Your task to perform on an android device: find which apps use the phone's location Image 0: 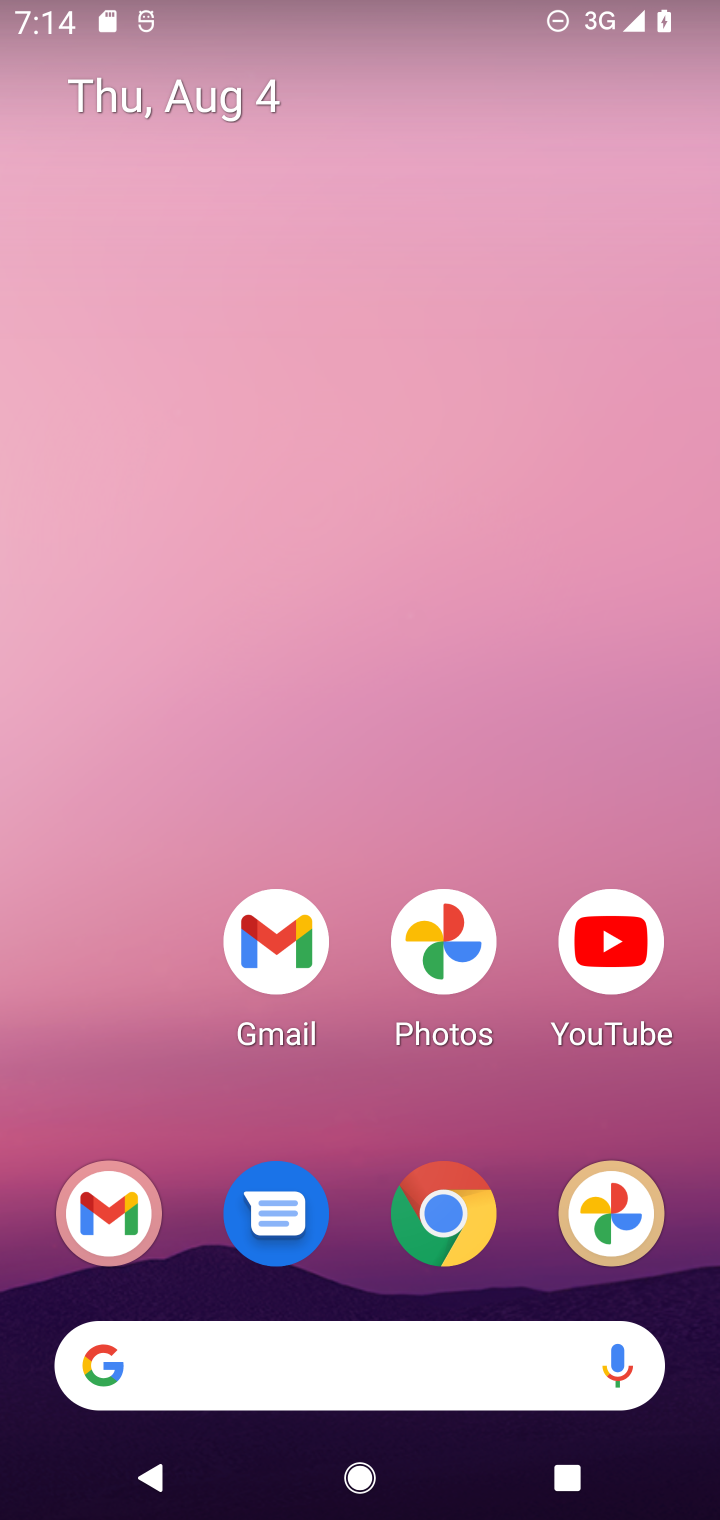
Step 0: press home button
Your task to perform on an android device: find which apps use the phone's location Image 1: 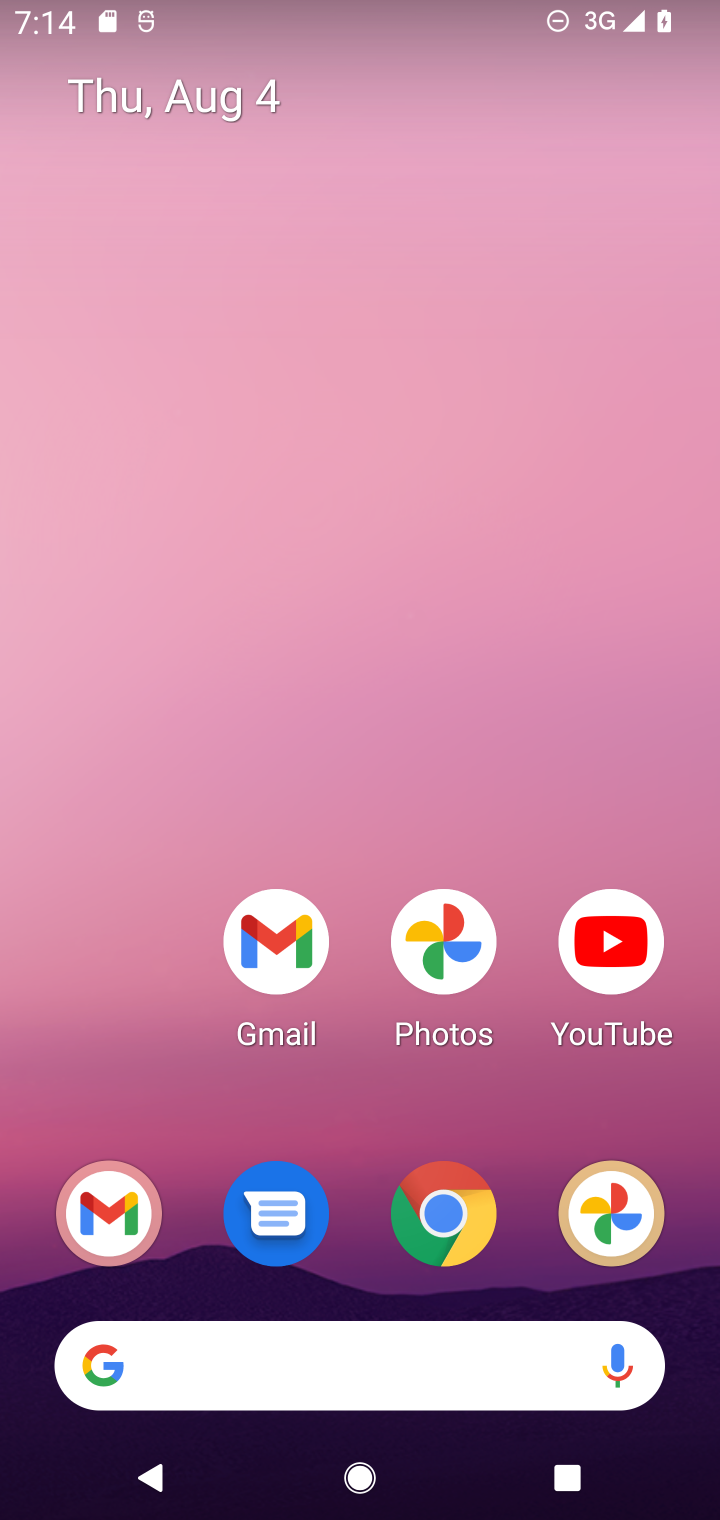
Step 1: drag from (174, 1106) to (102, 296)
Your task to perform on an android device: find which apps use the phone's location Image 2: 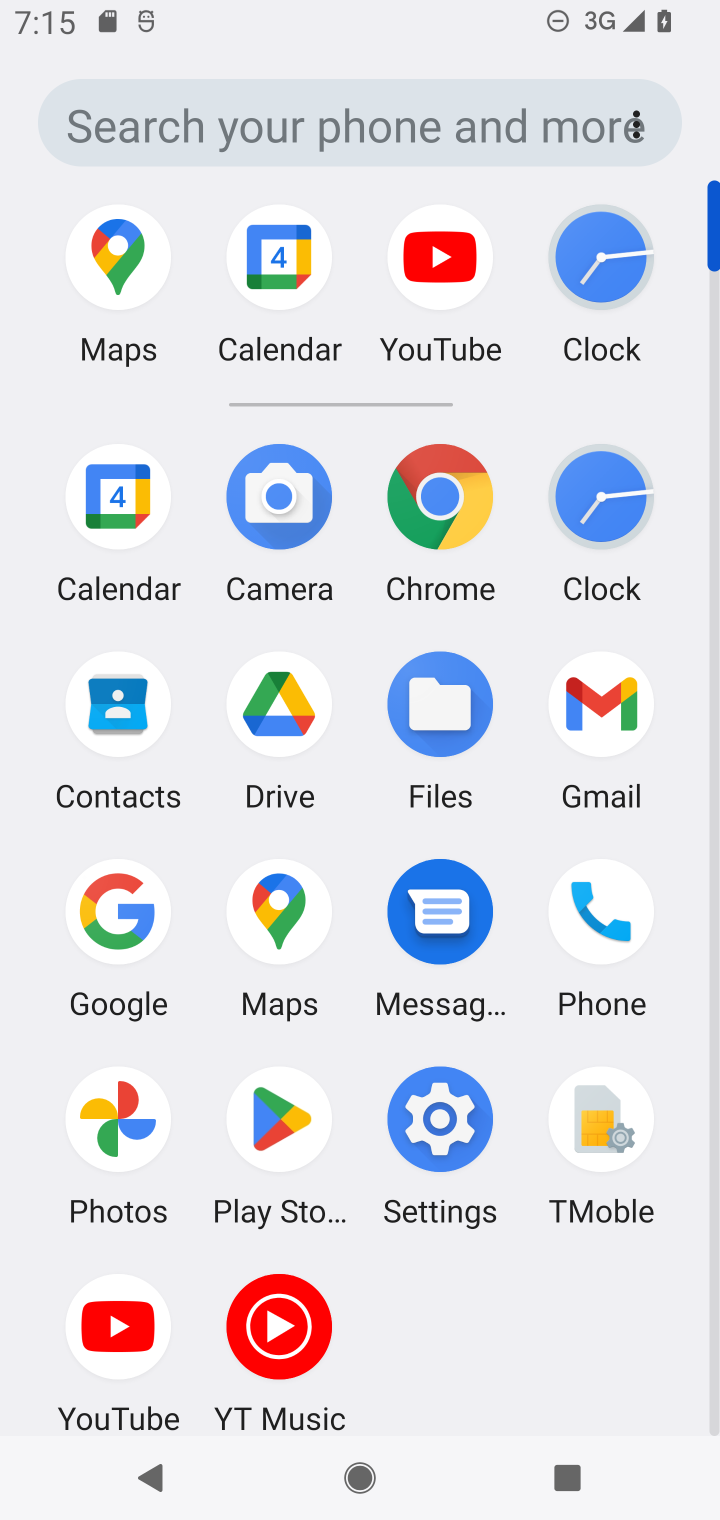
Step 2: click (433, 1150)
Your task to perform on an android device: find which apps use the phone's location Image 3: 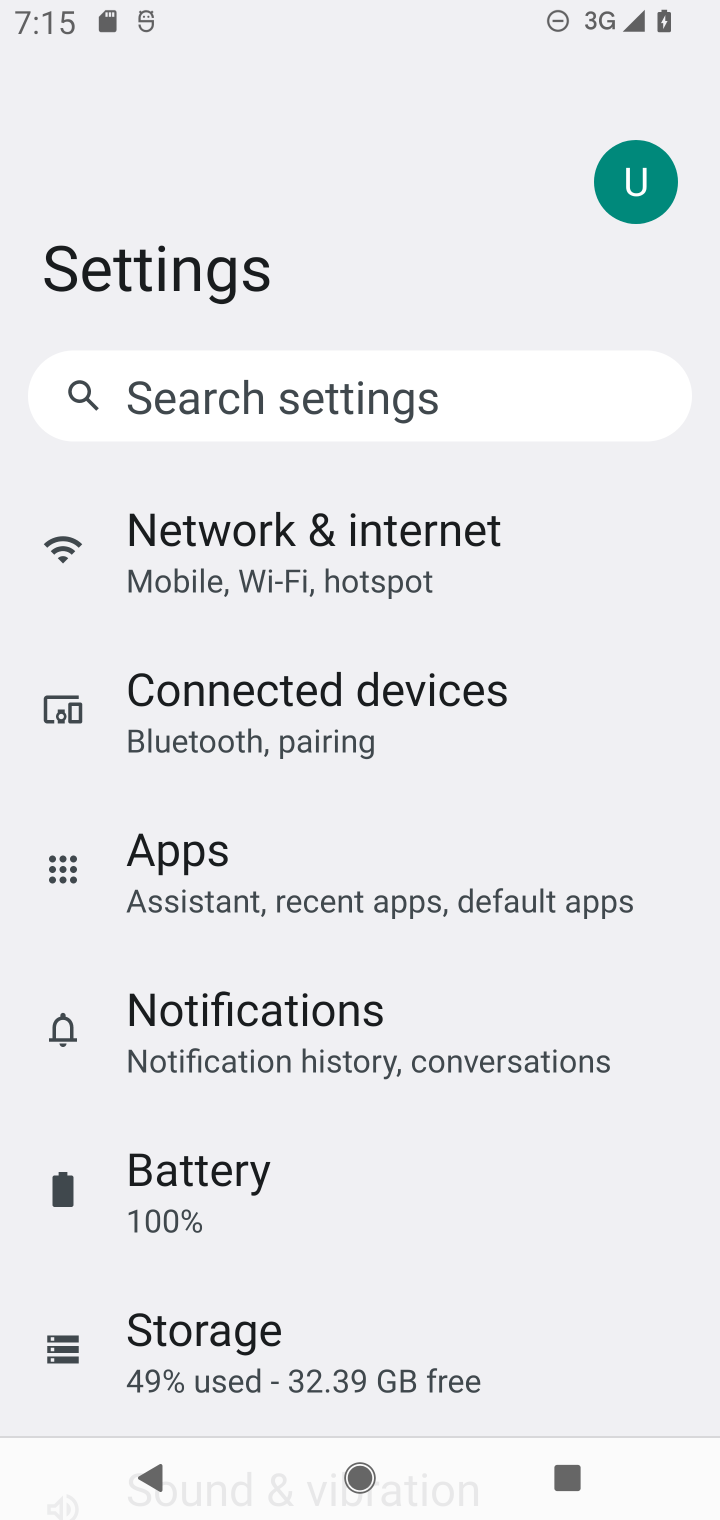
Step 3: drag from (596, 1170) to (617, 805)
Your task to perform on an android device: find which apps use the phone's location Image 4: 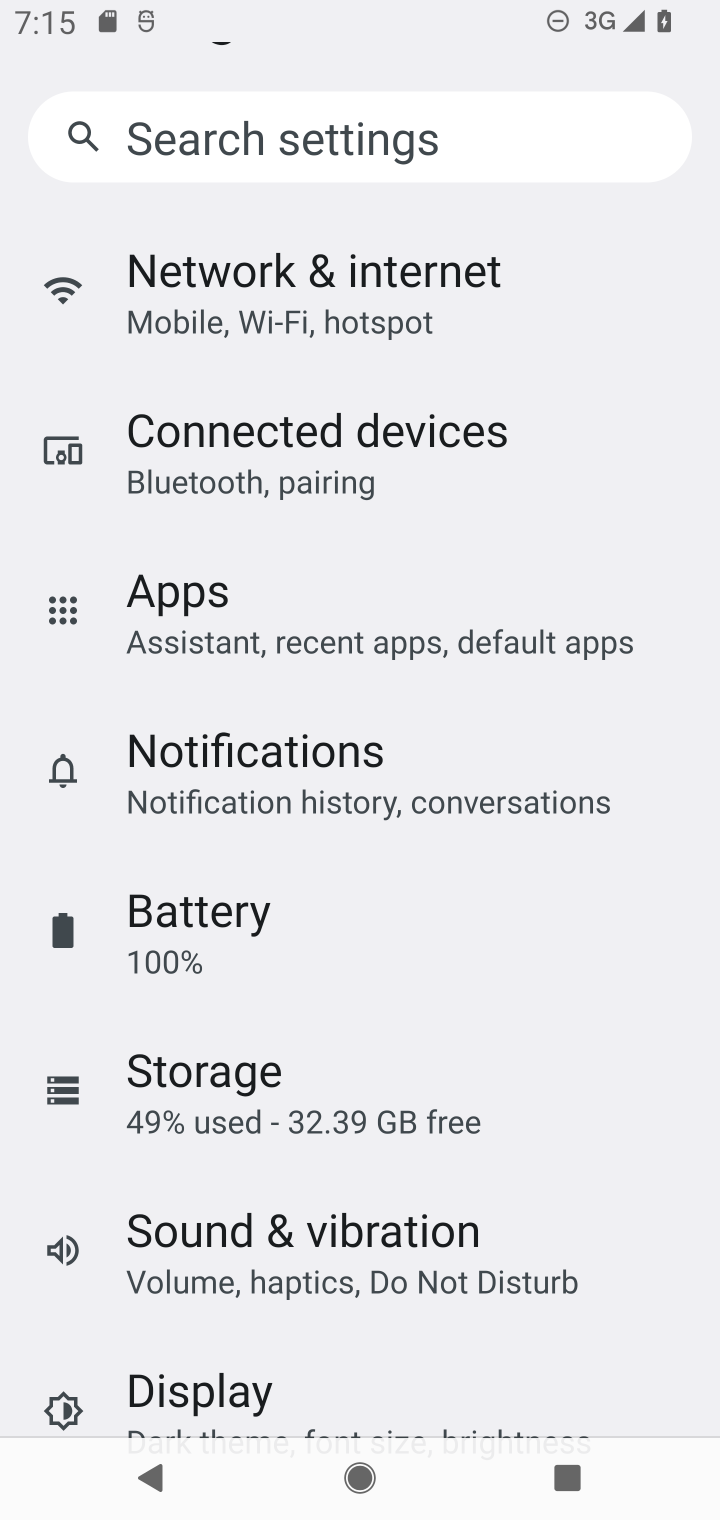
Step 4: drag from (615, 1234) to (627, 840)
Your task to perform on an android device: find which apps use the phone's location Image 5: 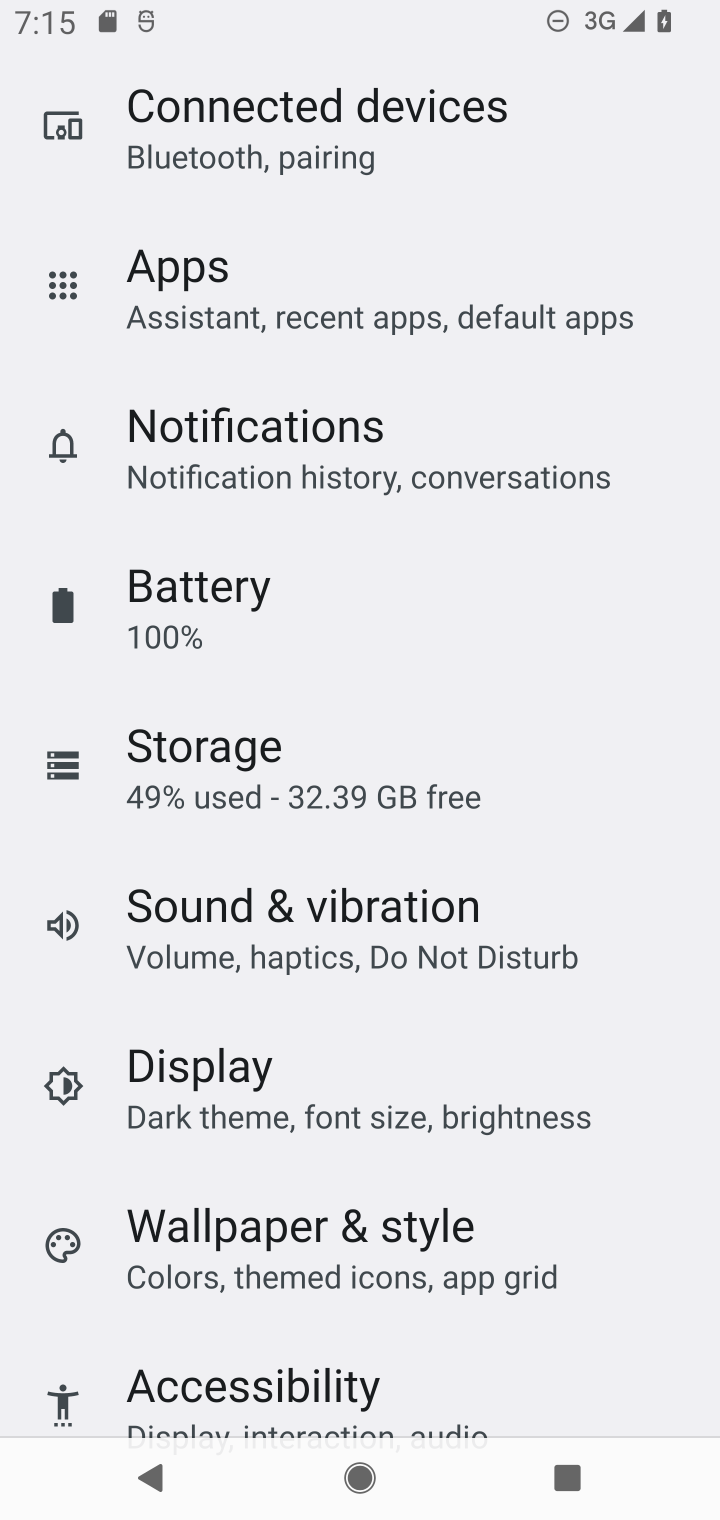
Step 5: drag from (629, 1304) to (639, 958)
Your task to perform on an android device: find which apps use the phone's location Image 6: 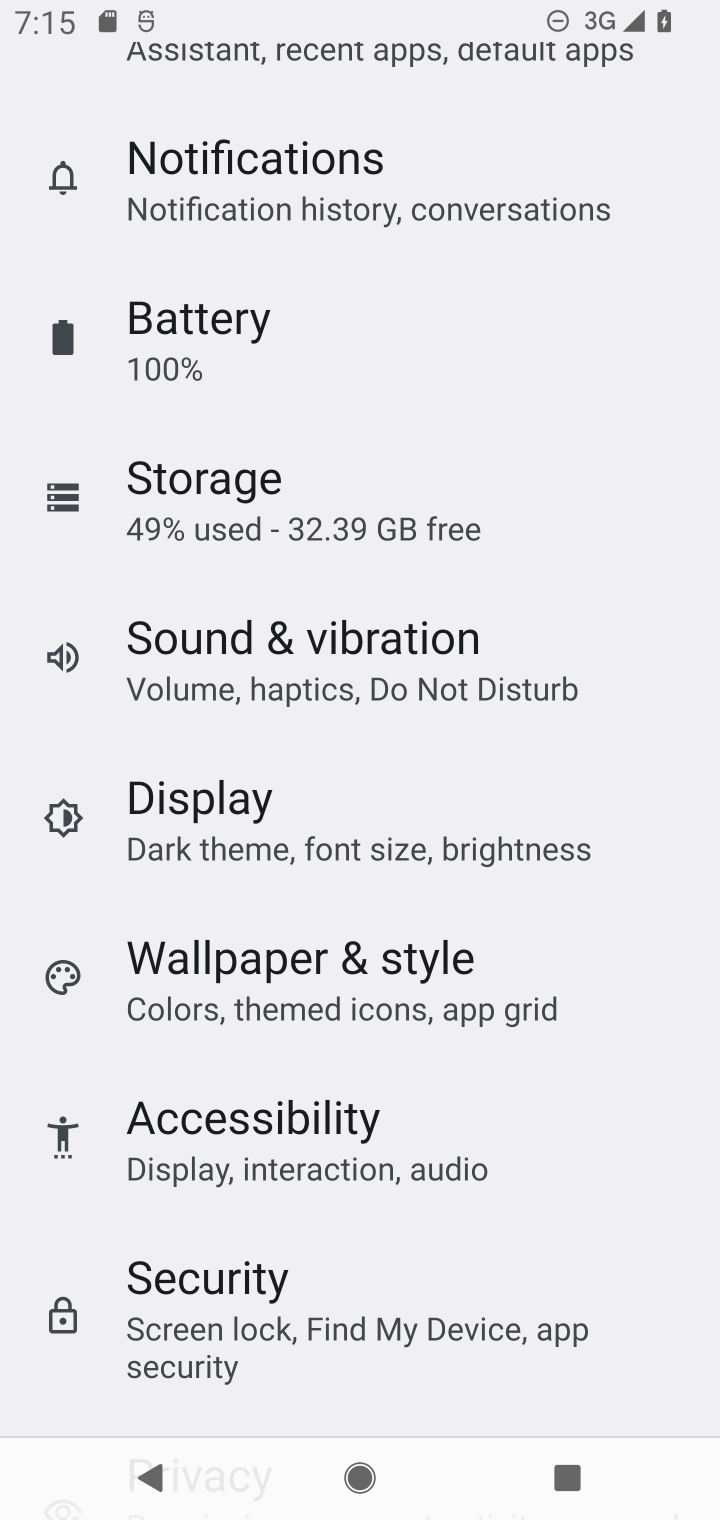
Step 6: drag from (639, 1242) to (594, 905)
Your task to perform on an android device: find which apps use the phone's location Image 7: 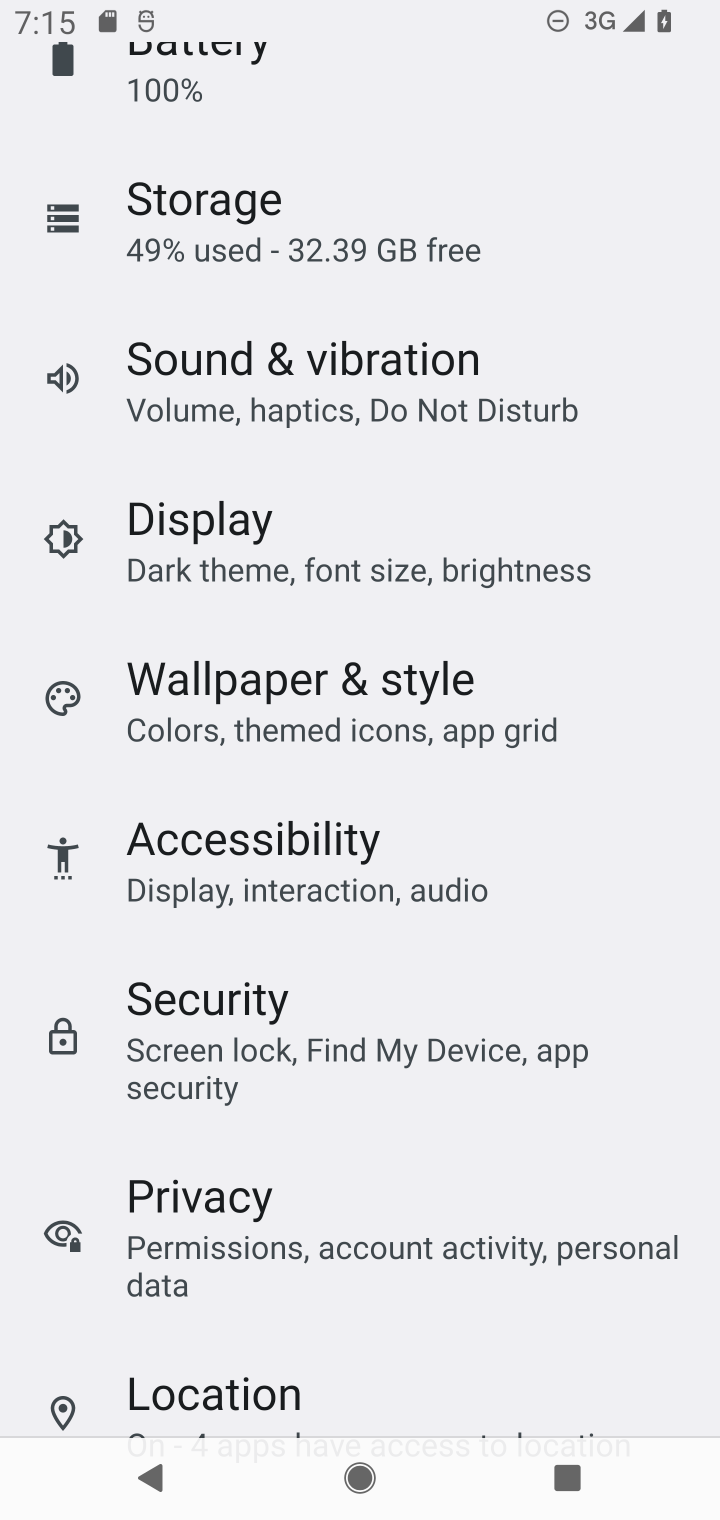
Step 7: drag from (533, 1373) to (542, 966)
Your task to perform on an android device: find which apps use the phone's location Image 8: 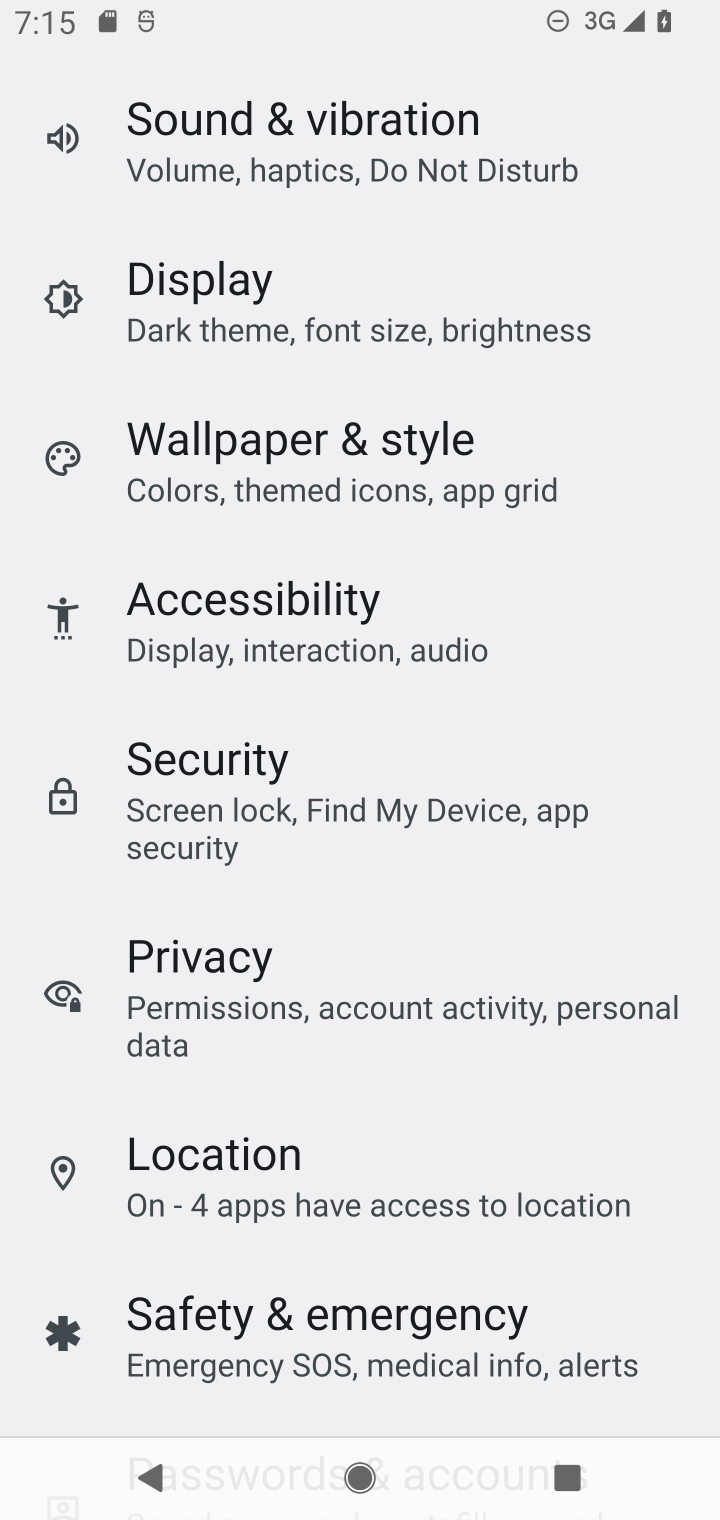
Step 8: drag from (614, 992) to (626, 645)
Your task to perform on an android device: find which apps use the phone's location Image 9: 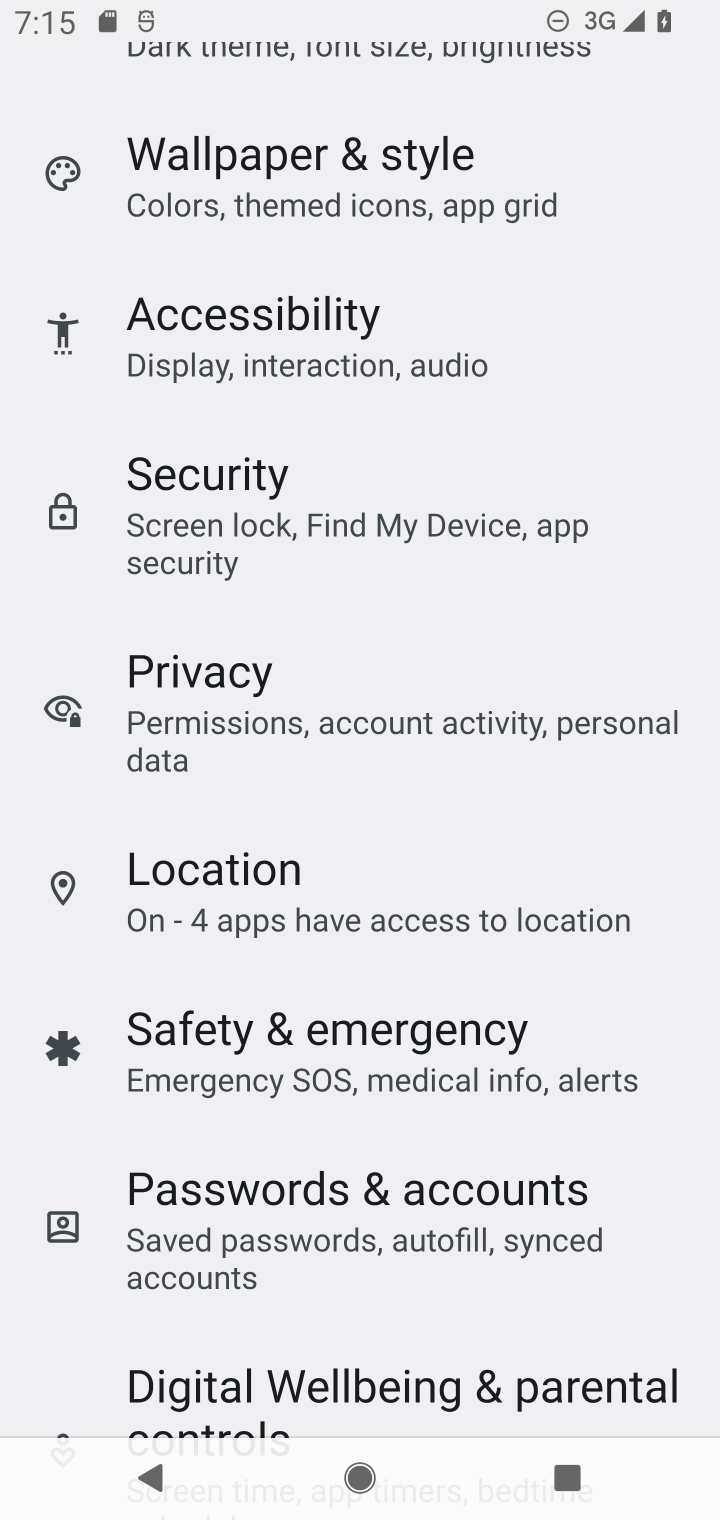
Step 9: drag from (649, 1186) to (633, 677)
Your task to perform on an android device: find which apps use the phone's location Image 10: 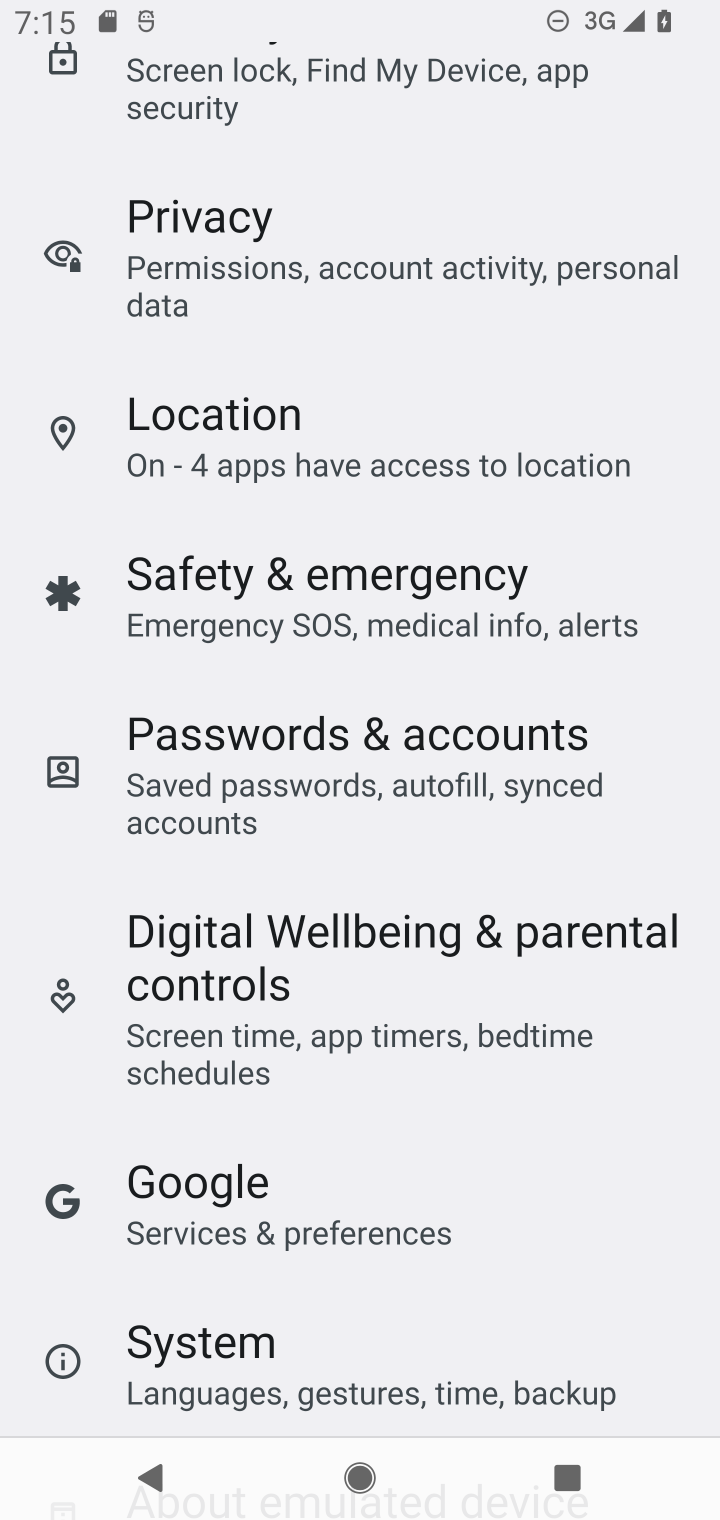
Step 10: click (422, 422)
Your task to perform on an android device: find which apps use the phone's location Image 11: 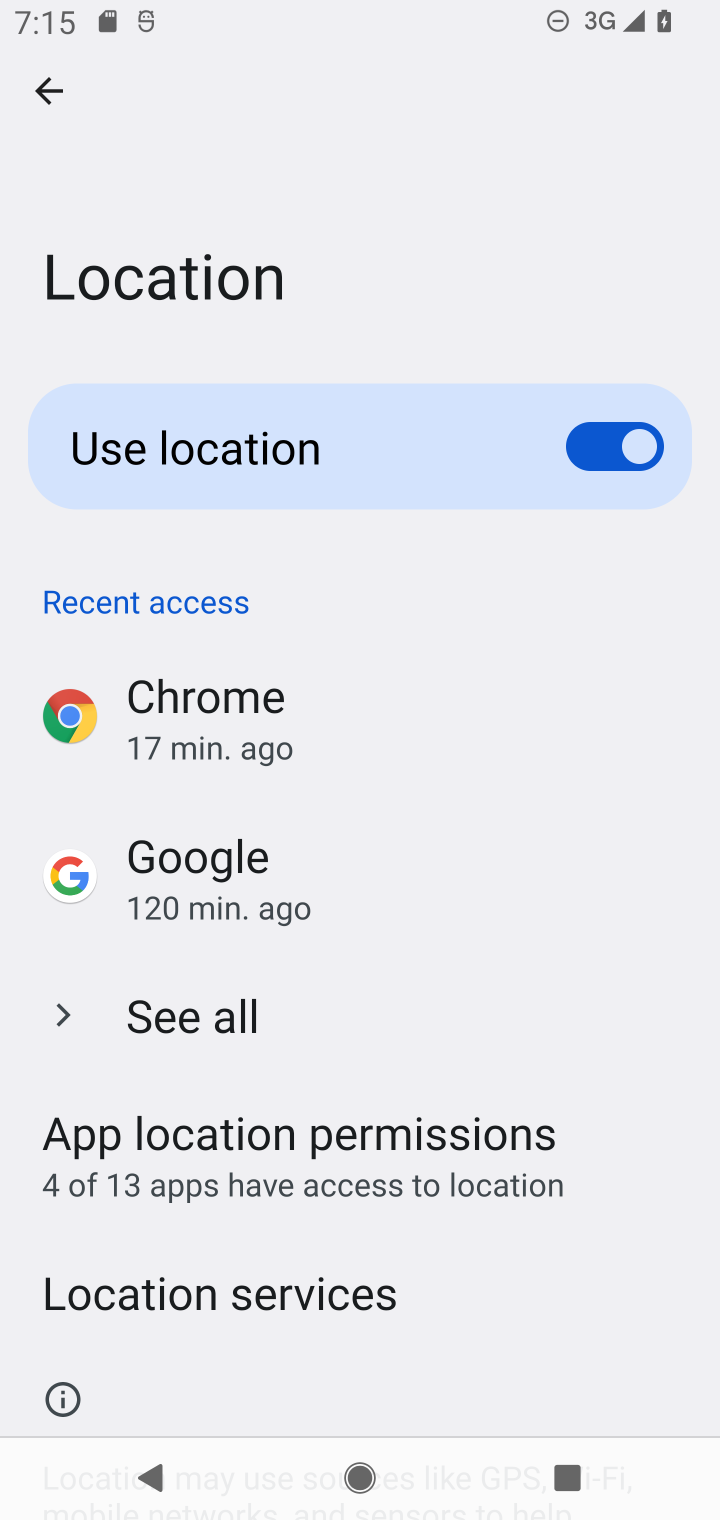
Step 11: click (386, 1162)
Your task to perform on an android device: find which apps use the phone's location Image 12: 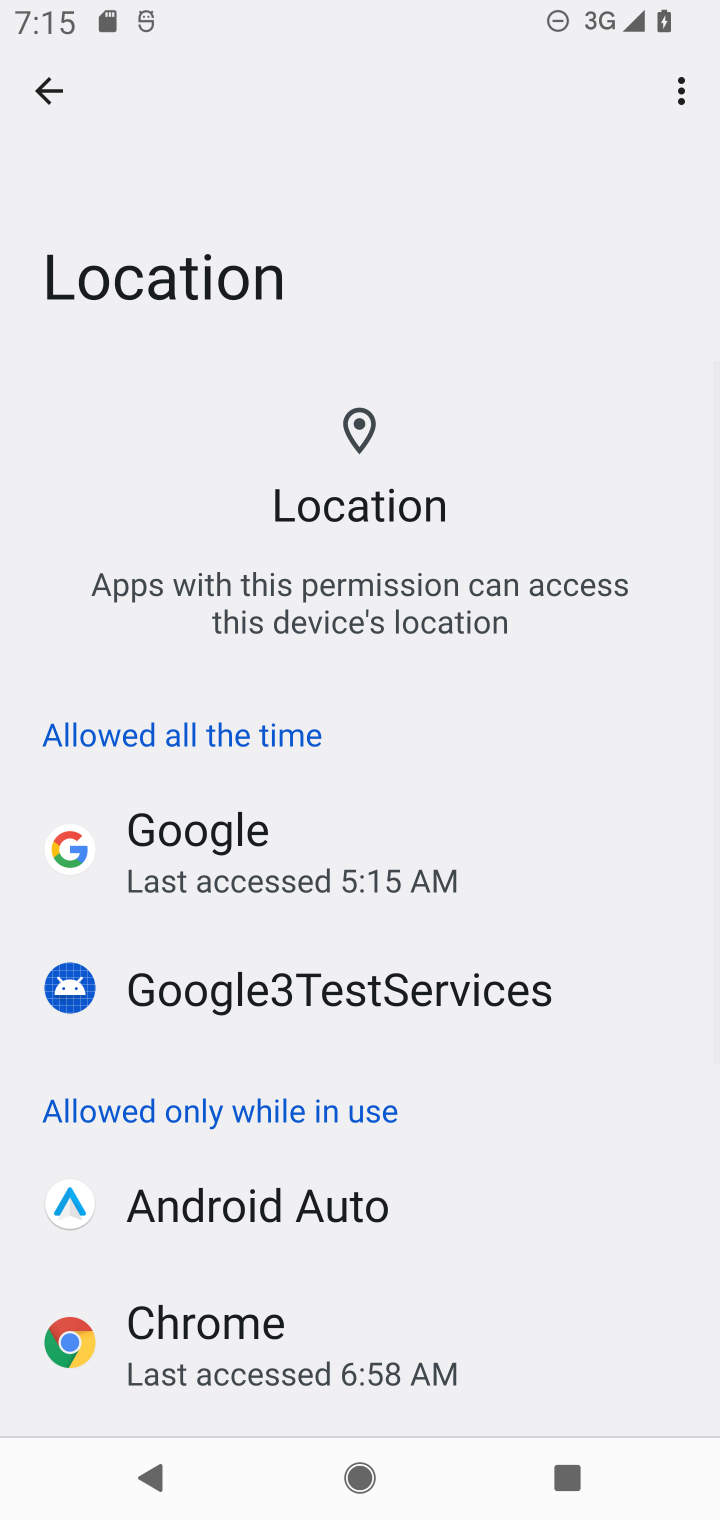
Step 12: drag from (536, 1184) to (506, 638)
Your task to perform on an android device: find which apps use the phone's location Image 13: 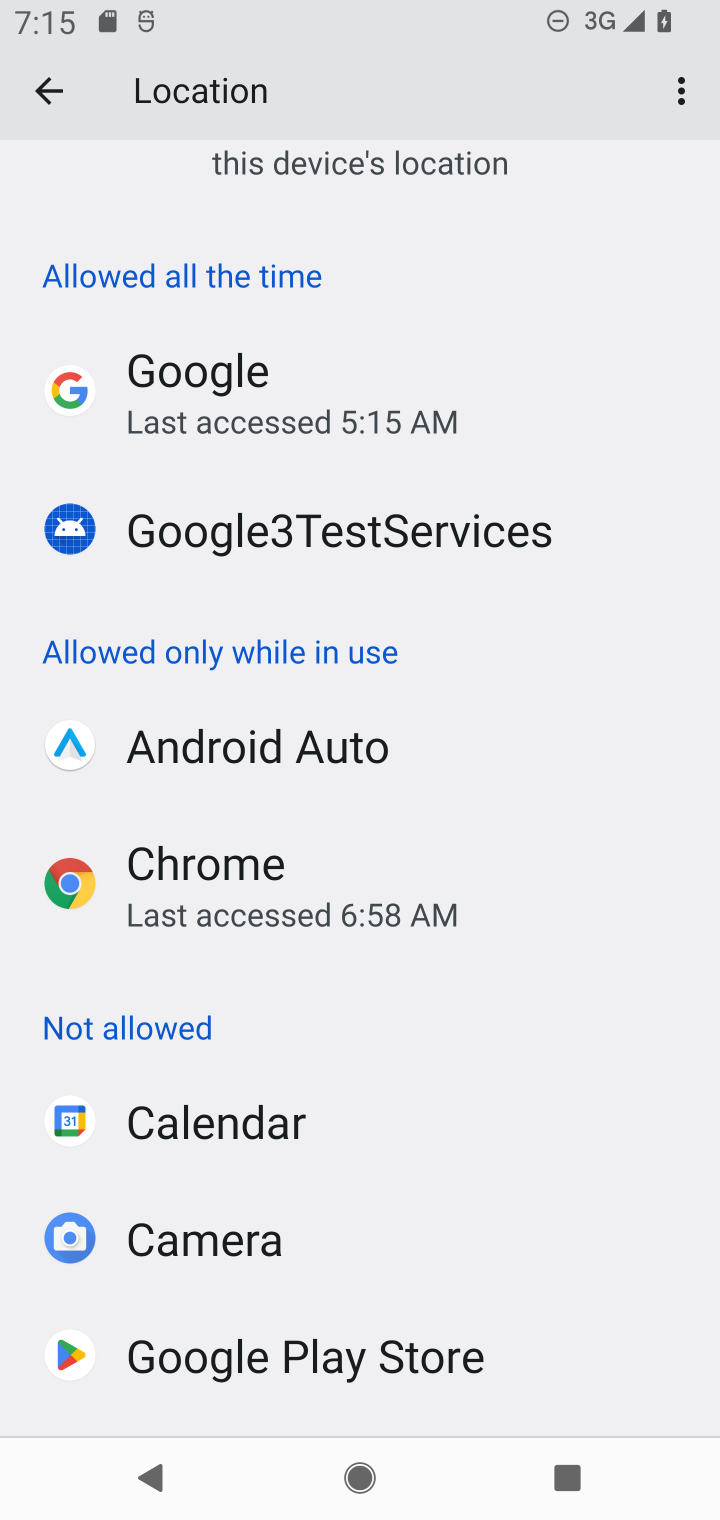
Step 13: drag from (514, 1204) to (530, 556)
Your task to perform on an android device: find which apps use the phone's location Image 14: 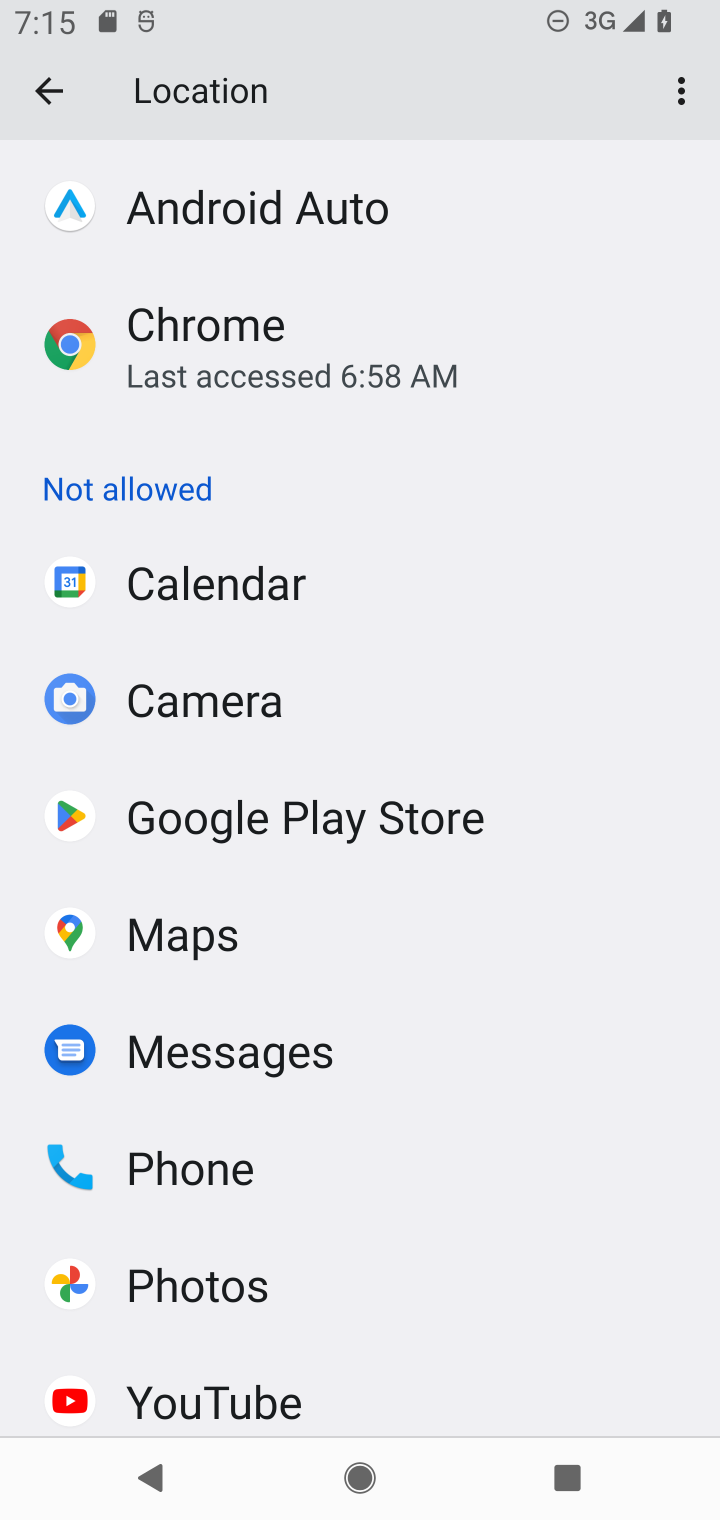
Step 14: click (289, 1310)
Your task to perform on an android device: find which apps use the phone's location Image 15: 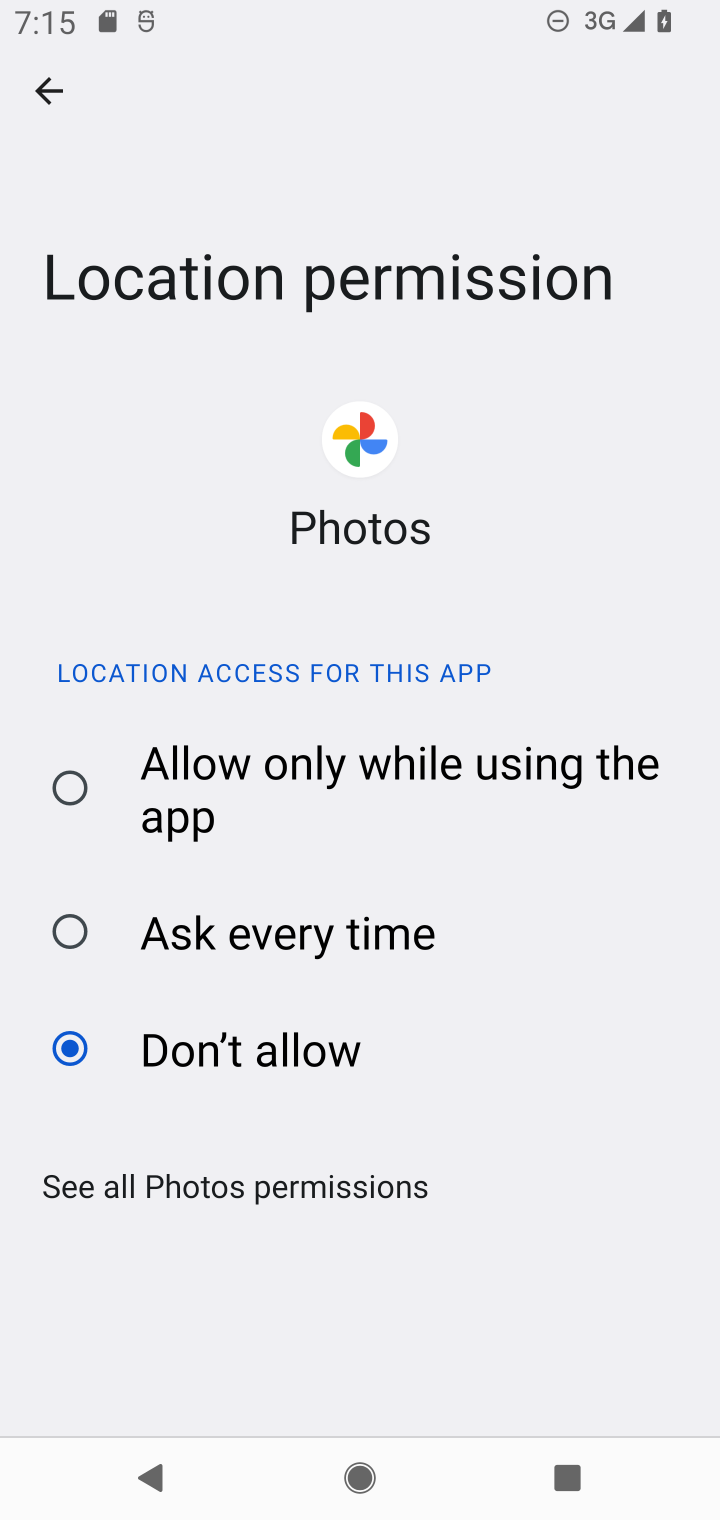
Step 15: click (347, 764)
Your task to perform on an android device: find which apps use the phone's location Image 16: 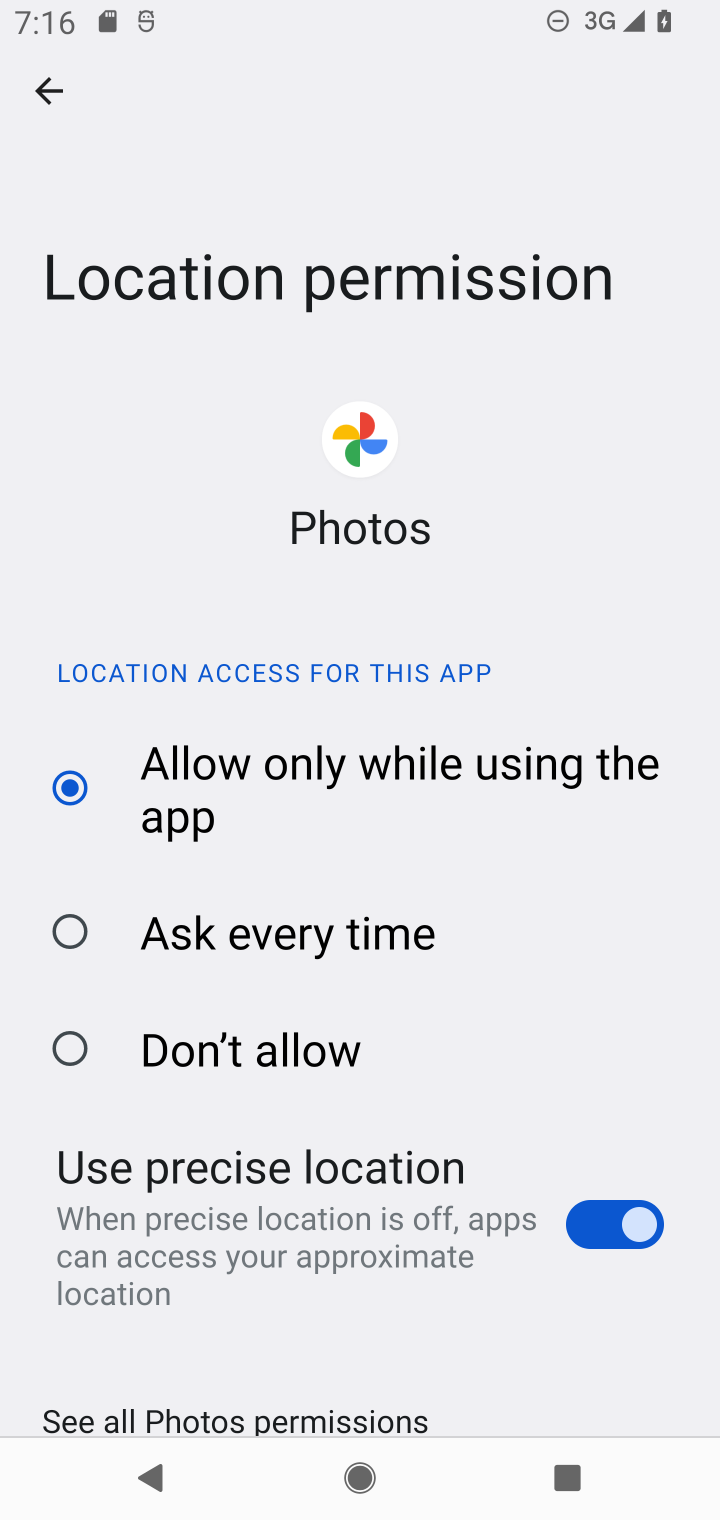
Step 16: task complete